Your task to perform on an android device: change text size in settings app Image 0: 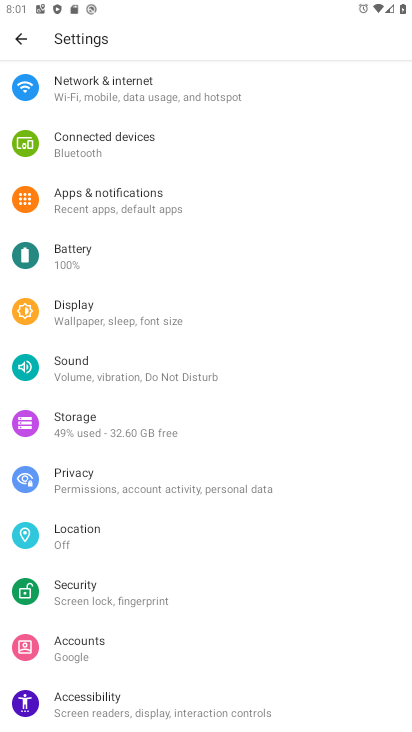
Step 0: drag from (153, 659) to (144, 383)
Your task to perform on an android device: change text size in settings app Image 1: 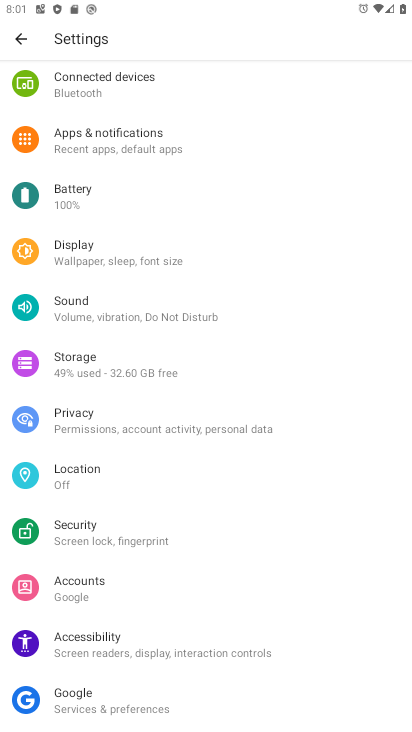
Step 1: click (111, 634)
Your task to perform on an android device: change text size in settings app Image 2: 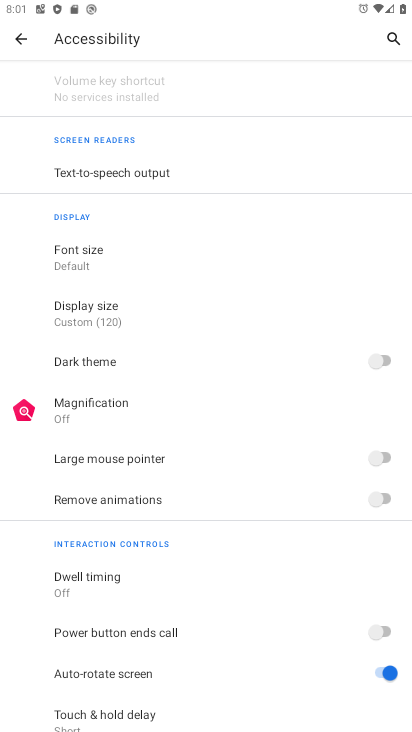
Step 2: click (78, 263)
Your task to perform on an android device: change text size in settings app Image 3: 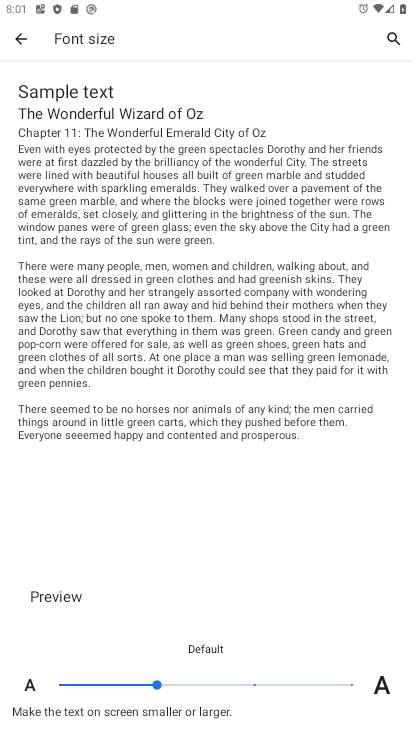
Step 3: click (251, 684)
Your task to perform on an android device: change text size in settings app Image 4: 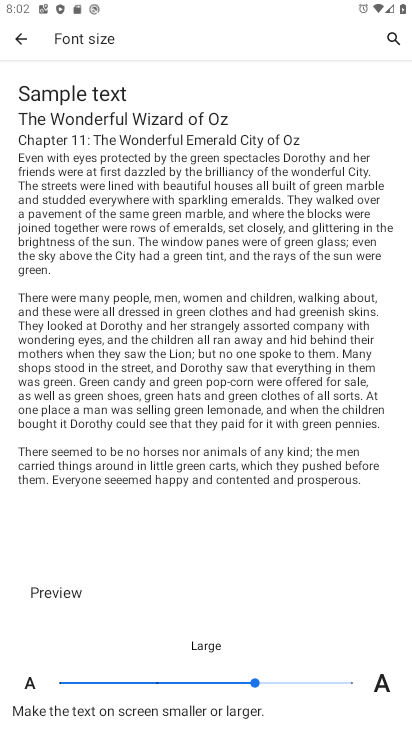
Step 4: task complete